Your task to perform on an android device: What's the weather? Image 0: 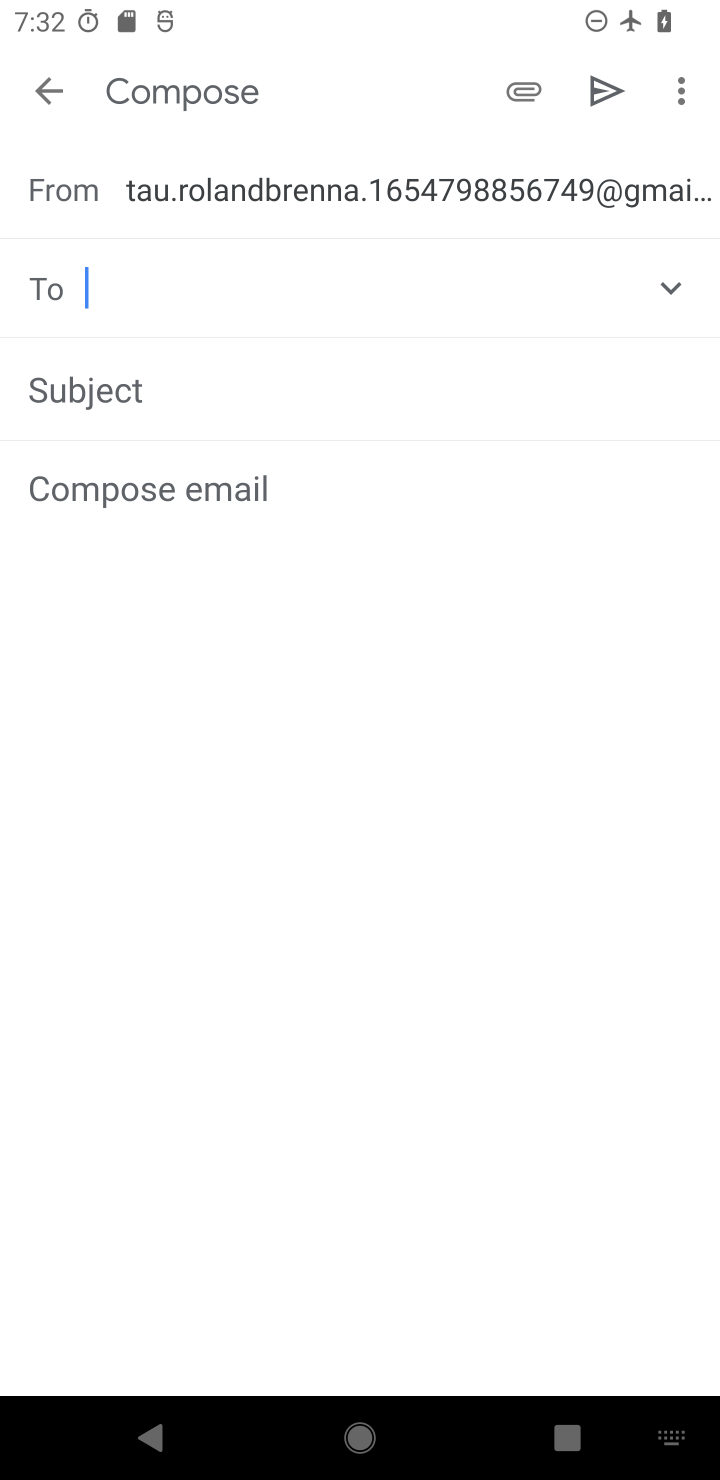
Step 0: press home button
Your task to perform on an android device: What's the weather? Image 1: 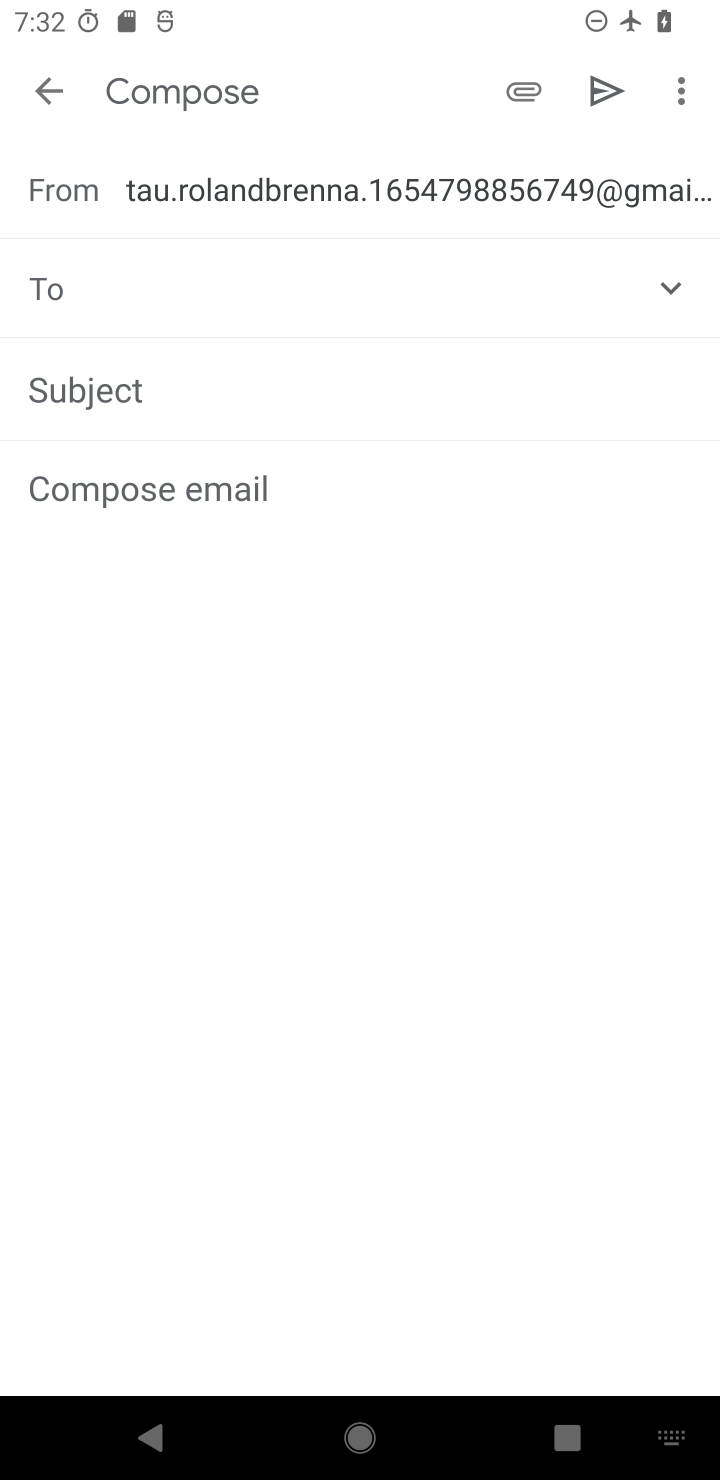
Step 1: press home button
Your task to perform on an android device: What's the weather? Image 2: 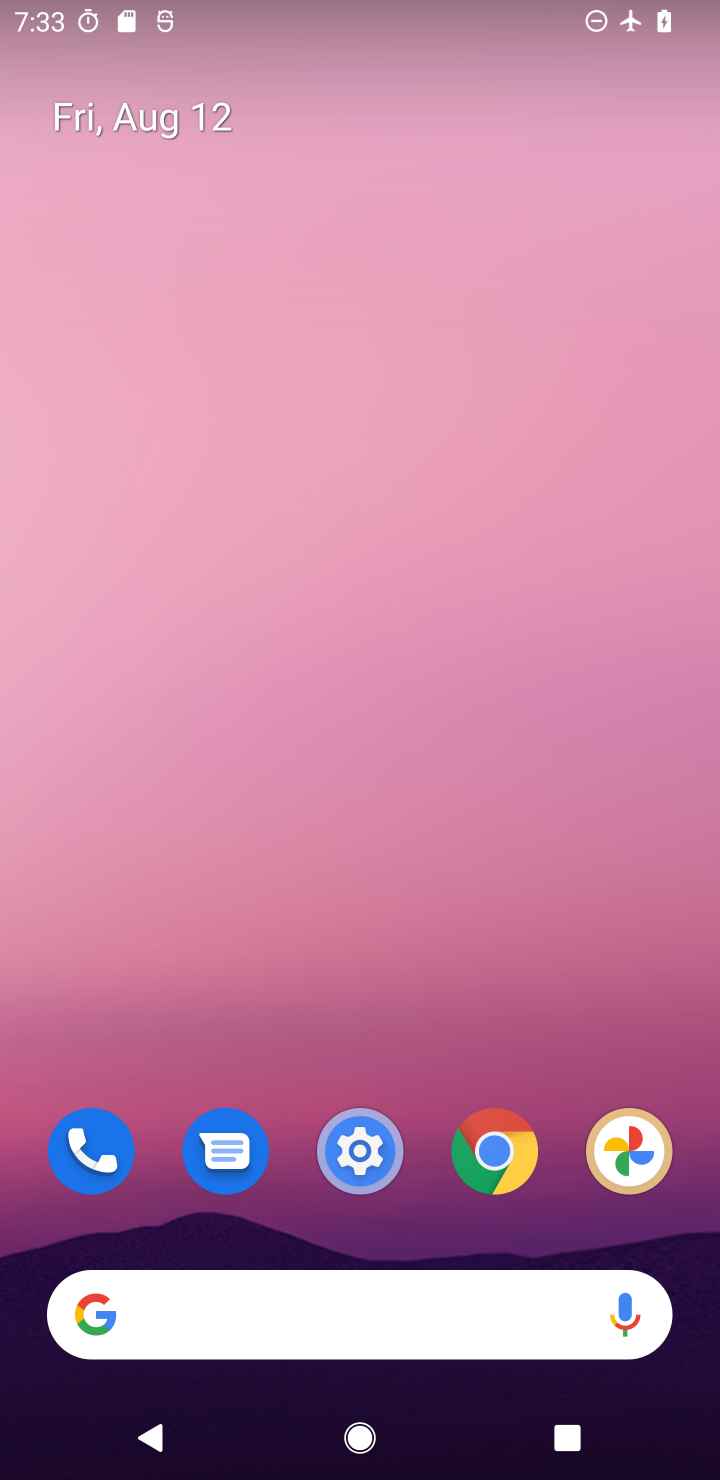
Step 2: drag from (550, 479) to (603, 78)
Your task to perform on an android device: What's the weather? Image 3: 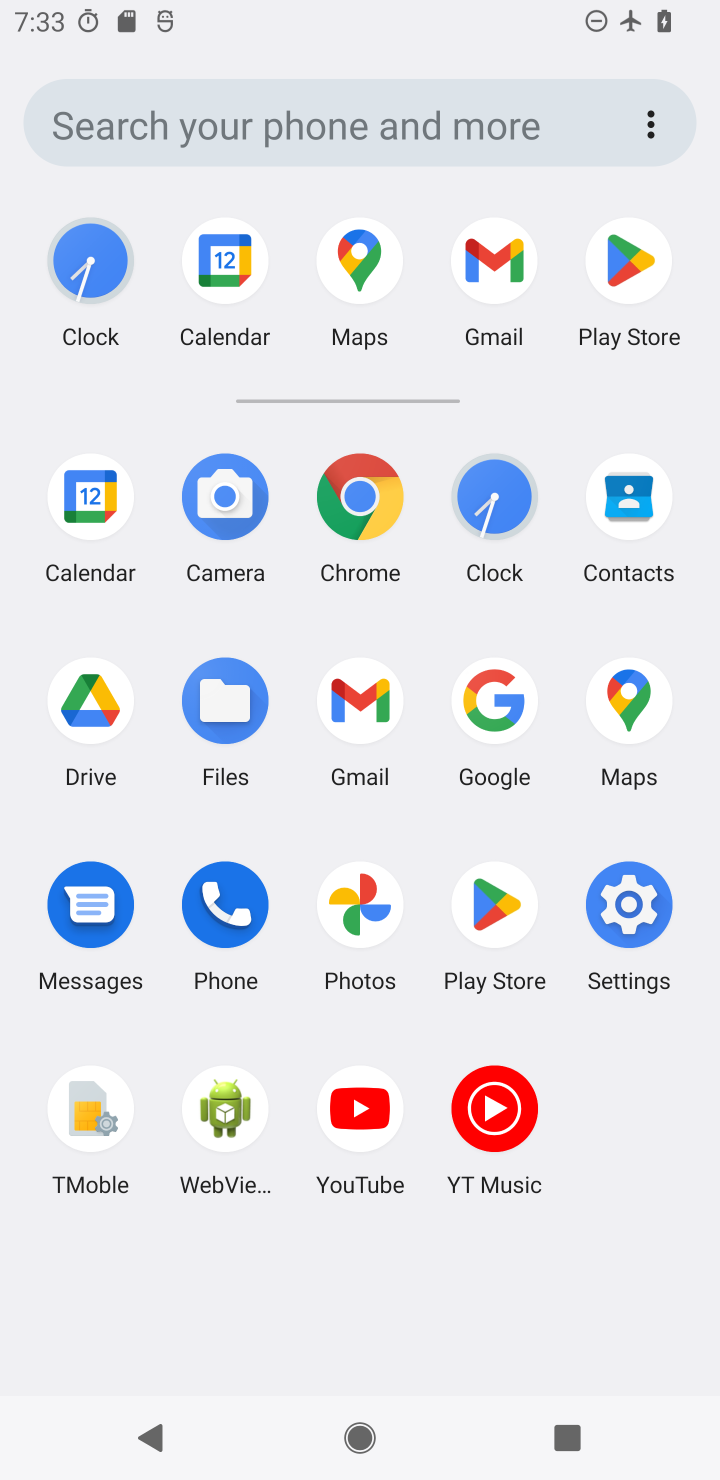
Step 3: click (365, 496)
Your task to perform on an android device: What's the weather? Image 4: 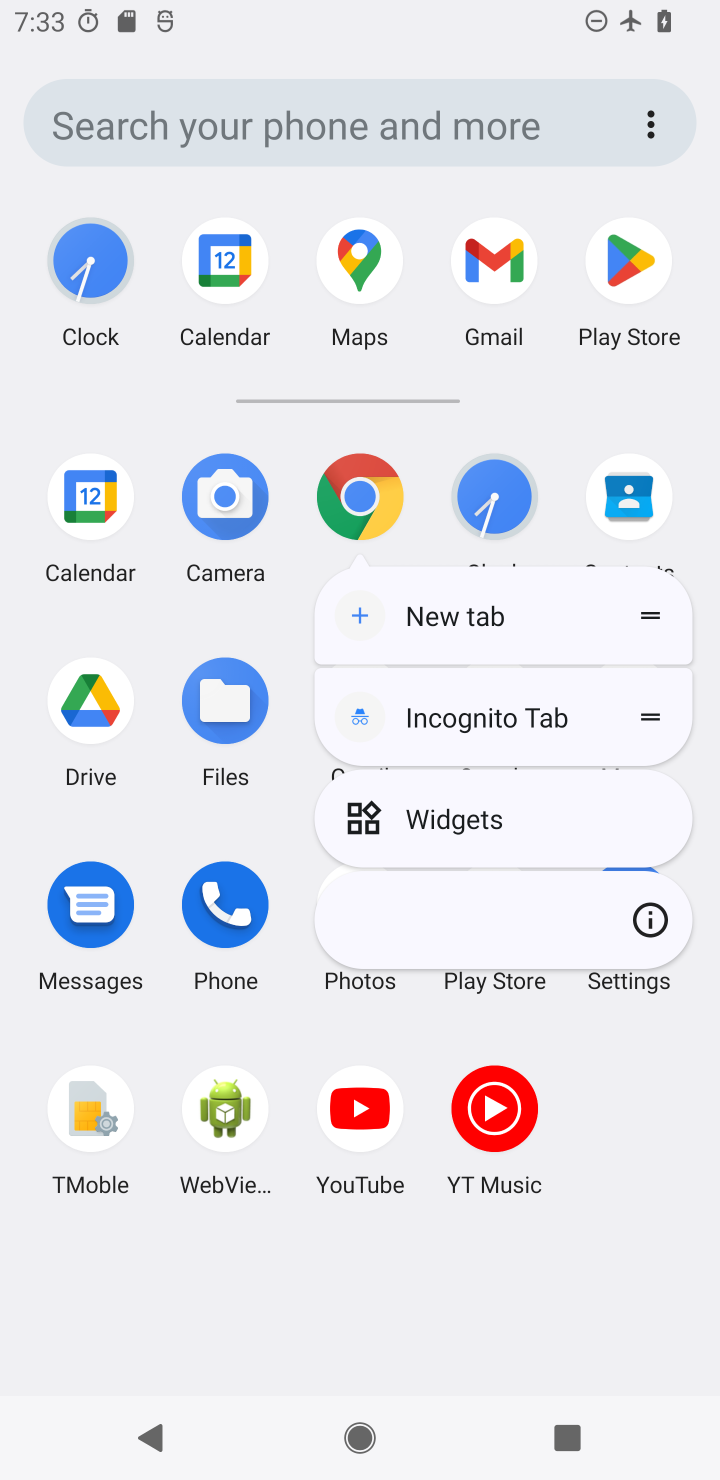
Step 4: click (365, 496)
Your task to perform on an android device: What's the weather? Image 5: 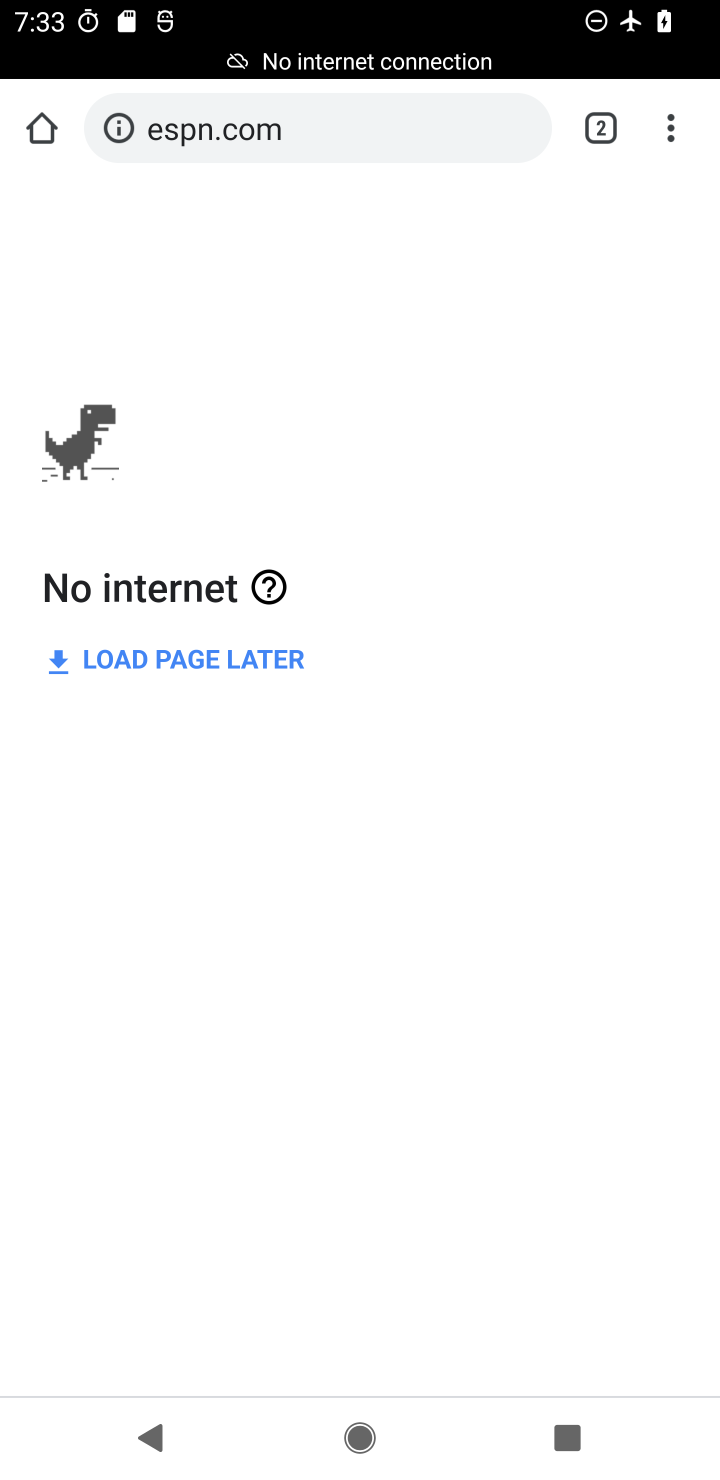
Step 5: click (286, 135)
Your task to perform on an android device: What's the weather? Image 6: 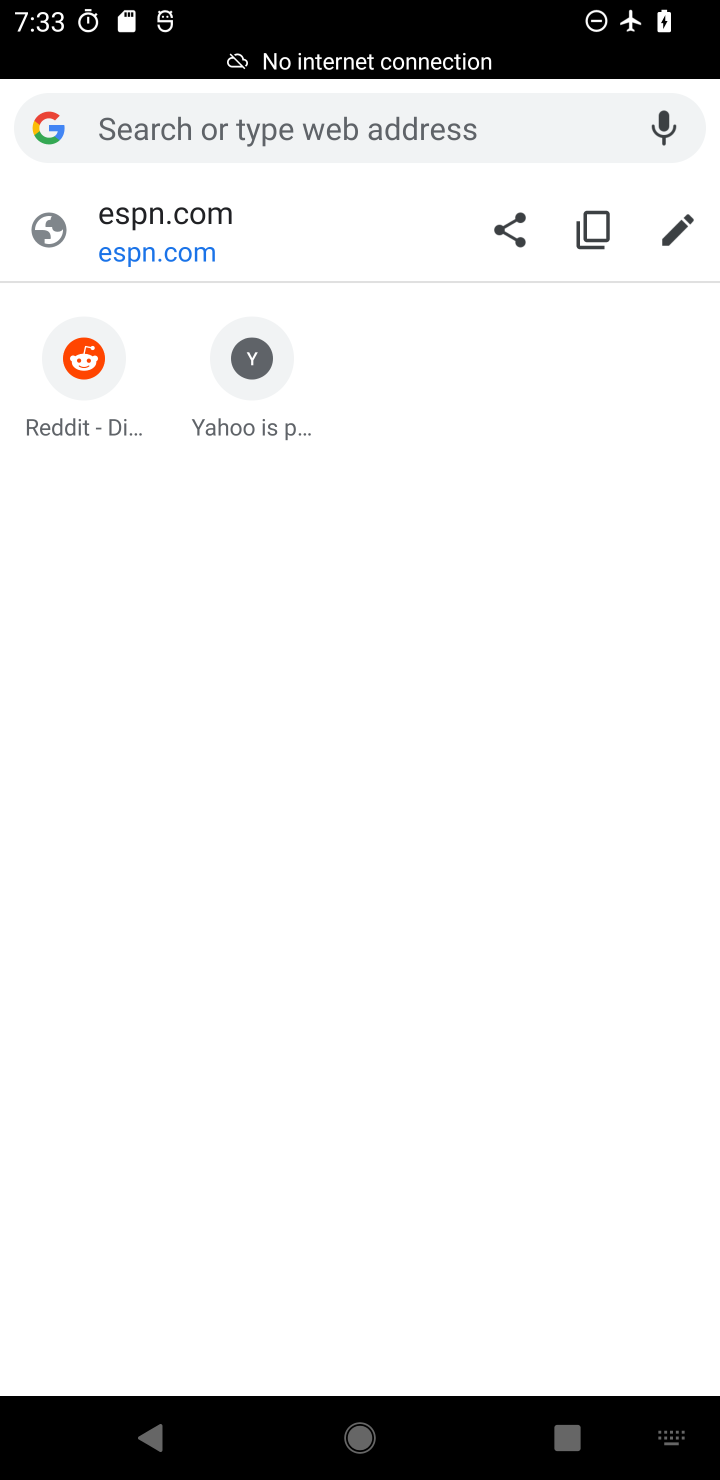
Step 6: type "weather"
Your task to perform on an android device: What's the weather? Image 7: 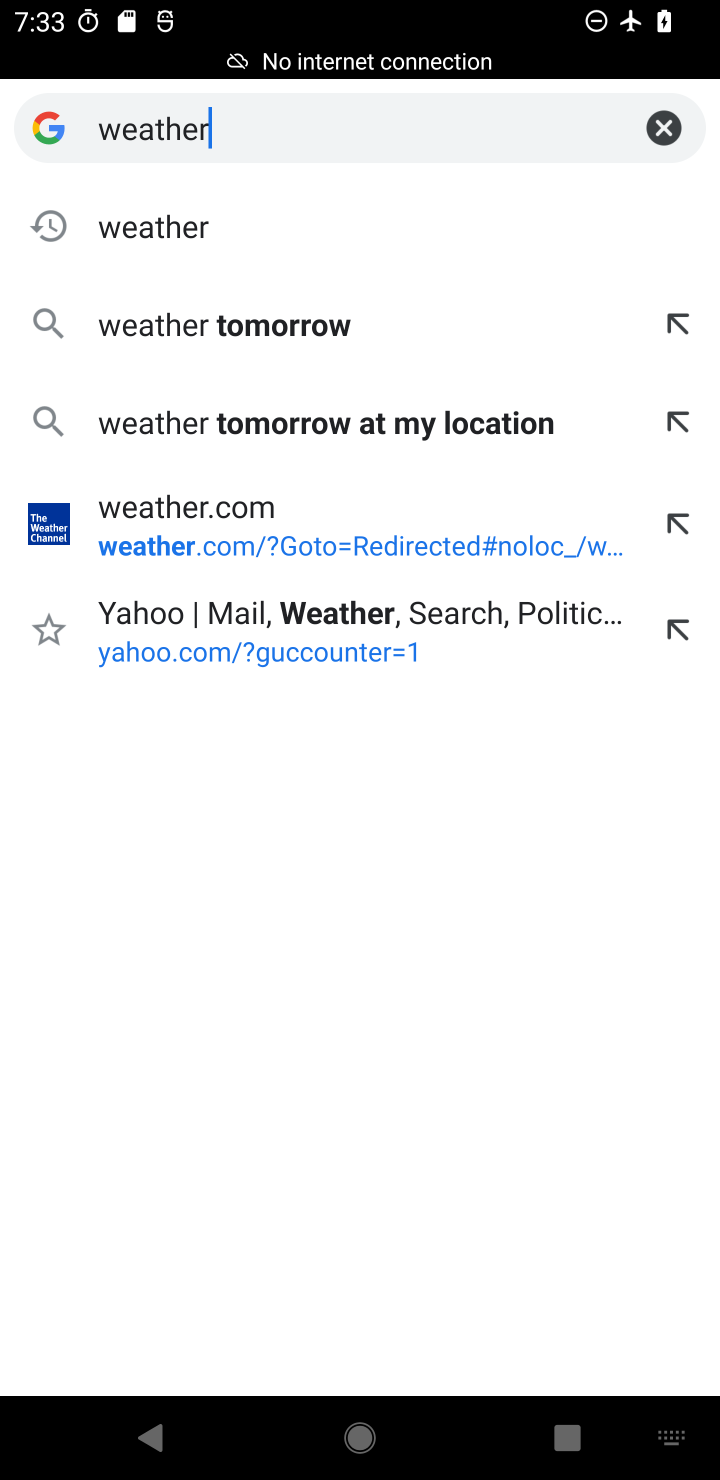
Step 7: click (198, 226)
Your task to perform on an android device: What's the weather? Image 8: 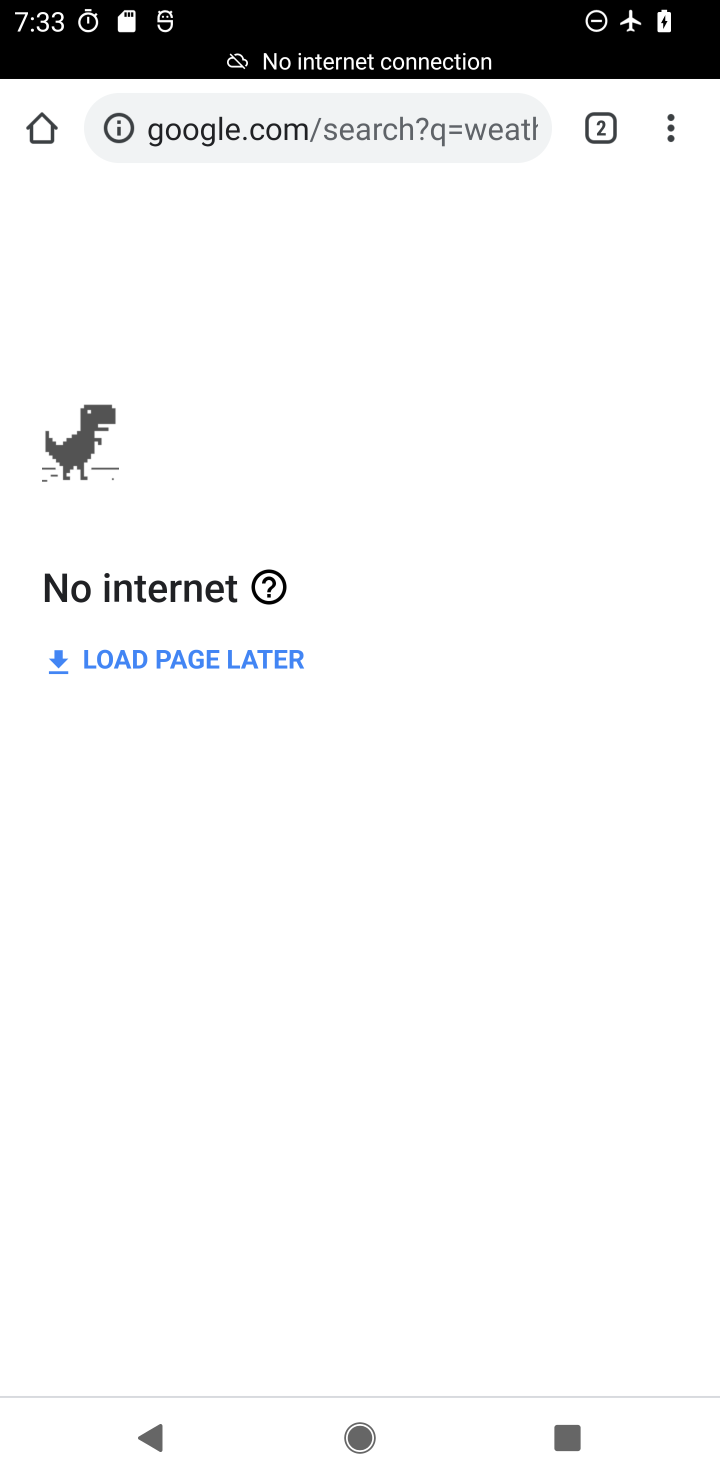
Step 8: task complete